Your task to perform on an android device: Open the calendar and show me this week's events Image 0: 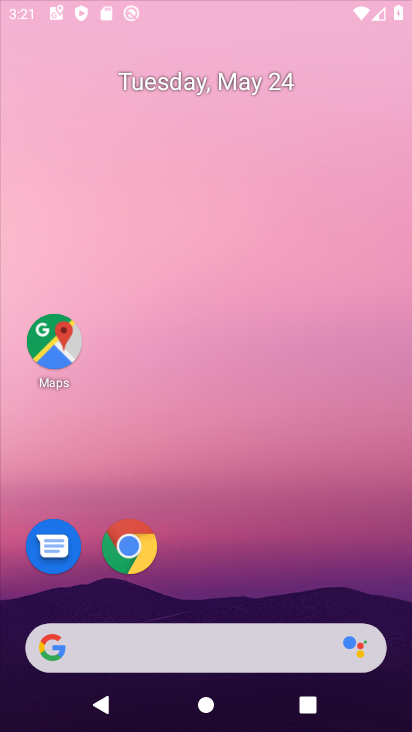
Step 0: click (242, 59)
Your task to perform on an android device: Open the calendar and show me this week's events Image 1: 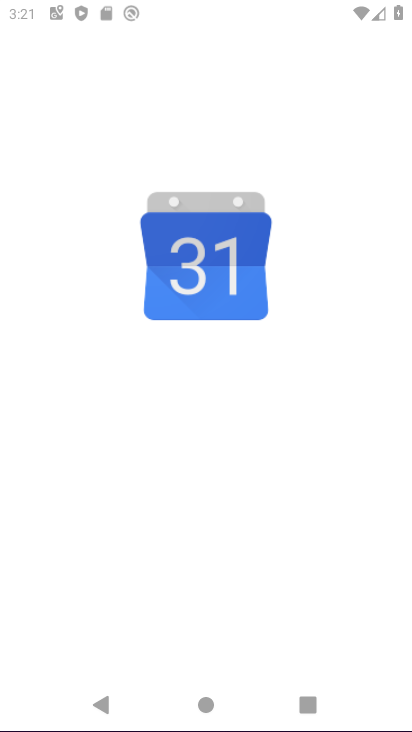
Step 1: press home button
Your task to perform on an android device: Open the calendar and show me this week's events Image 2: 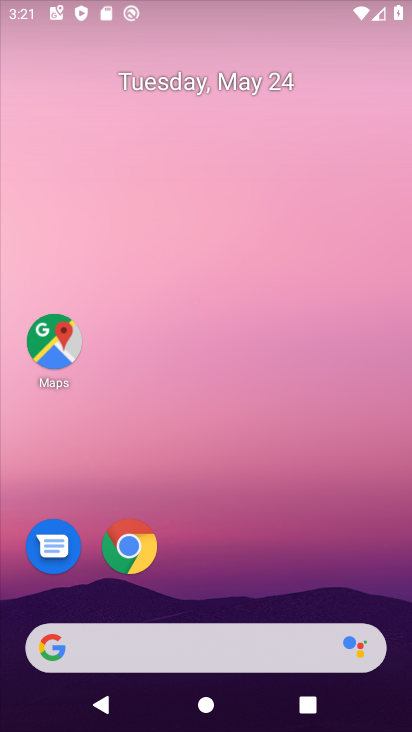
Step 2: drag from (267, 544) to (221, 33)
Your task to perform on an android device: Open the calendar and show me this week's events Image 3: 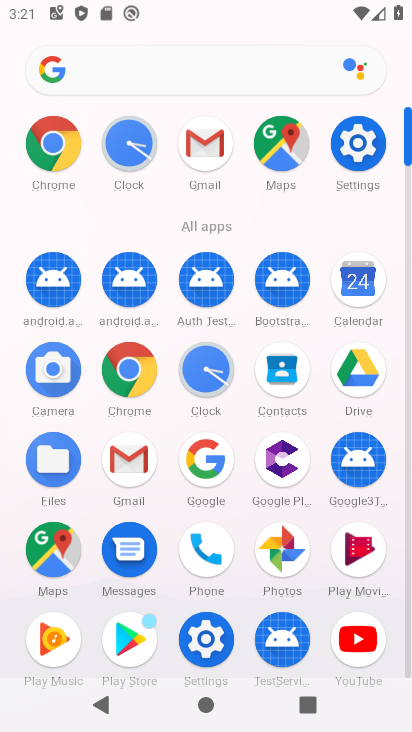
Step 3: click (359, 272)
Your task to perform on an android device: Open the calendar and show me this week's events Image 4: 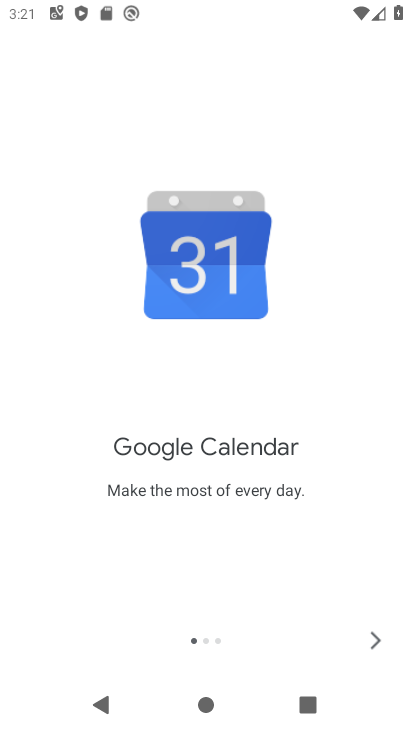
Step 4: click (376, 644)
Your task to perform on an android device: Open the calendar and show me this week's events Image 5: 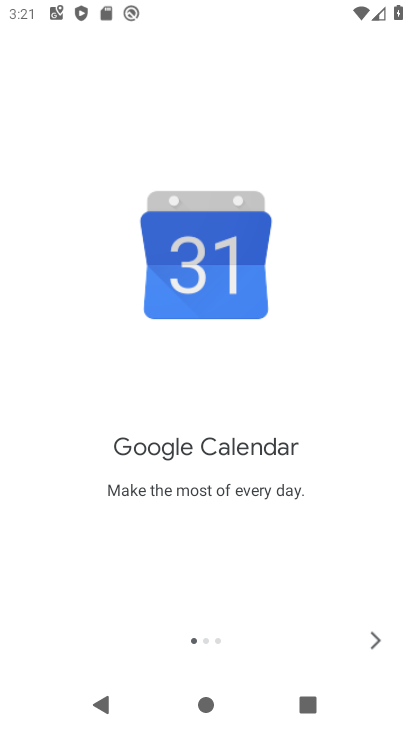
Step 5: click (375, 646)
Your task to perform on an android device: Open the calendar and show me this week's events Image 6: 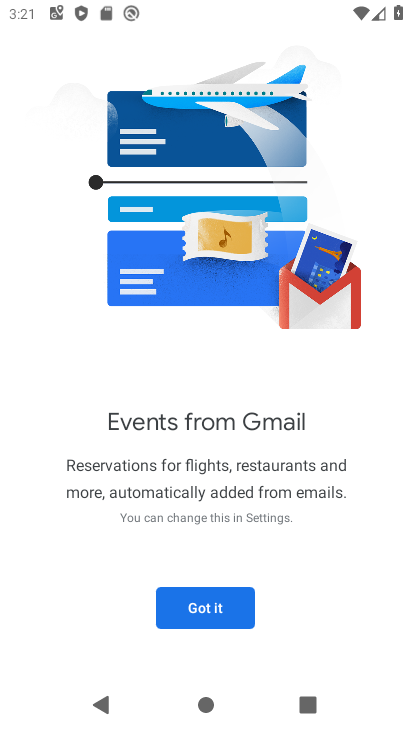
Step 6: click (218, 610)
Your task to perform on an android device: Open the calendar and show me this week's events Image 7: 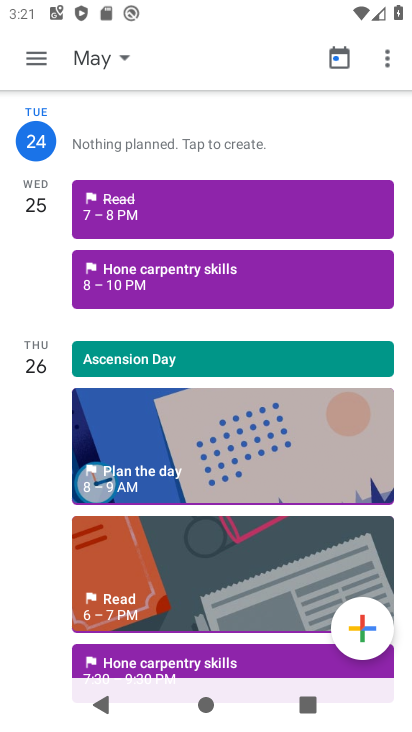
Step 7: click (21, 51)
Your task to perform on an android device: Open the calendar and show me this week's events Image 8: 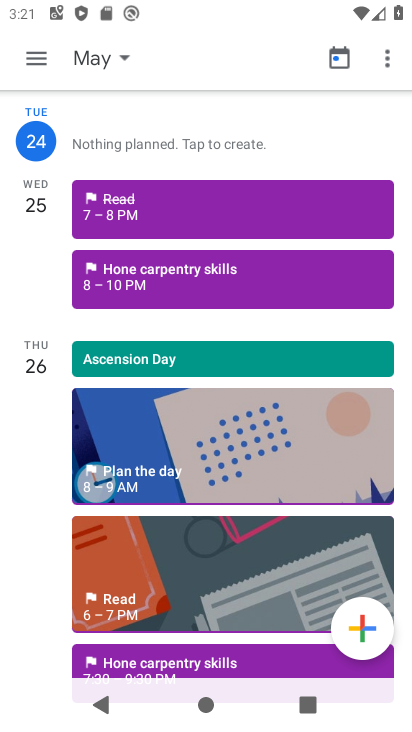
Step 8: click (38, 60)
Your task to perform on an android device: Open the calendar and show me this week's events Image 9: 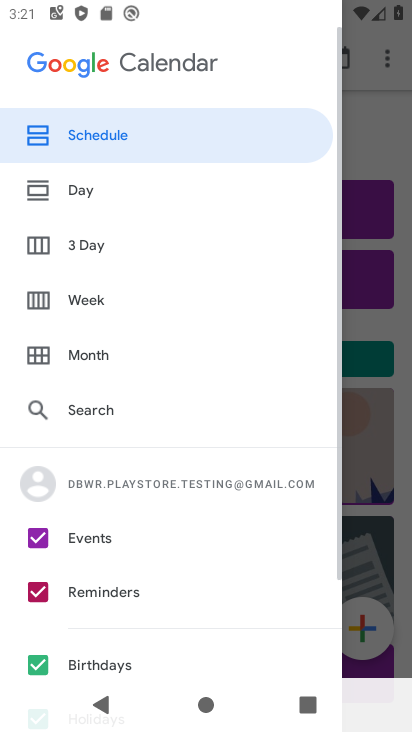
Step 9: click (97, 296)
Your task to perform on an android device: Open the calendar and show me this week's events Image 10: 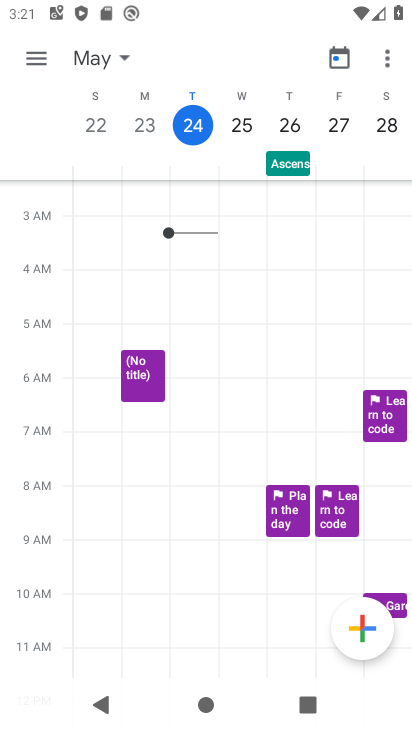
Step 10: task complete